Your task to perform on an android device: Go to internet settings Image 0: 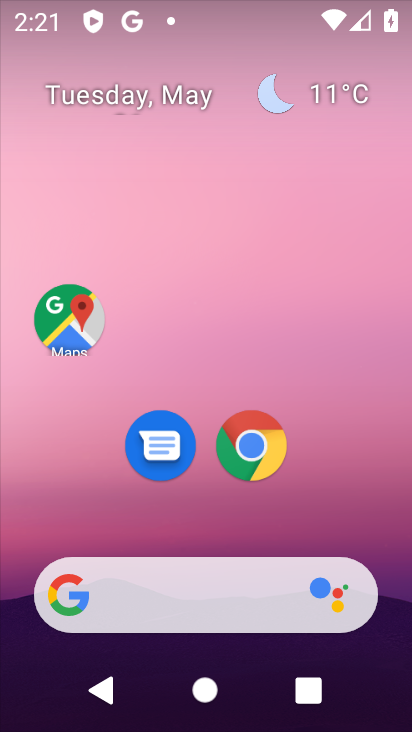
Step 0: drag from (246, 429) to (254, 104)
Your task to perform on an android device: Go to internet settings Image 1: 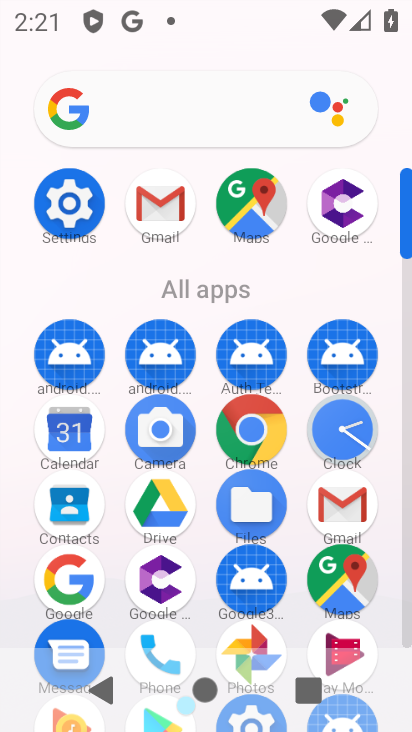
Step 1: click (79, 208)
Your task to perform on an android device: Go to internet settings Image 2: 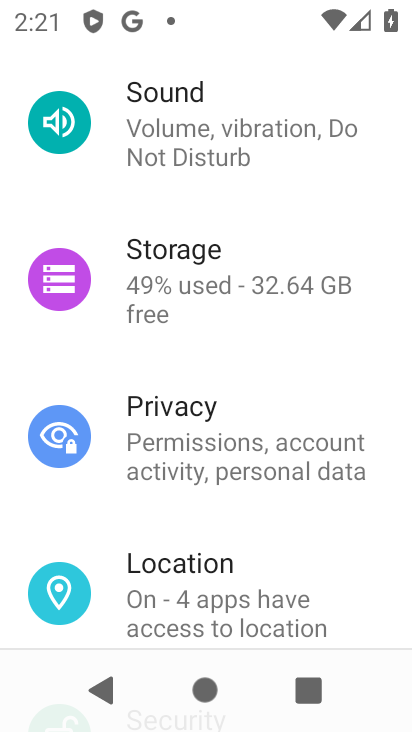
Step 2: drag from (238, 109) to (291, 543)
Your task to perform on an android device: Go to internet settings Image 3: 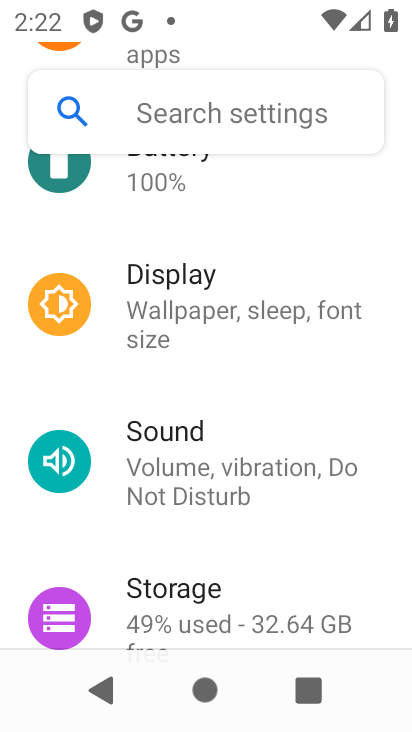
Step 3: drag from (269, 201) to (310, 603)
Your task to perform on an android device: Go to internet settings Image 4: 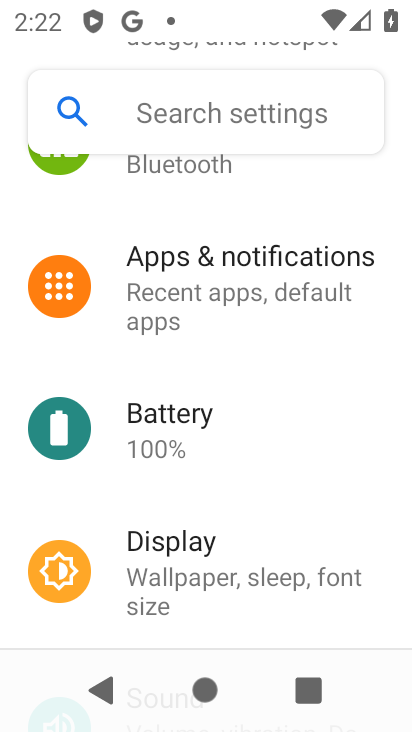
Step 4: drag from (247, 207) to (297, 566)
Your task to perform on an android device: Go to internet settings Image 5: 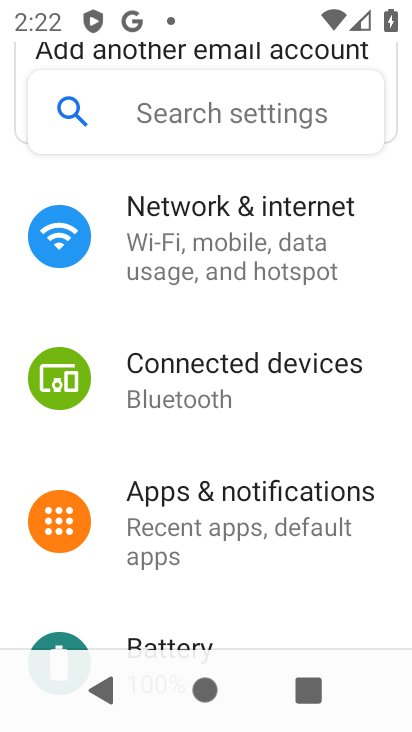
Step 5: click (229, 238)
Your task to perform on an android device: Go to internet settings Image 6: 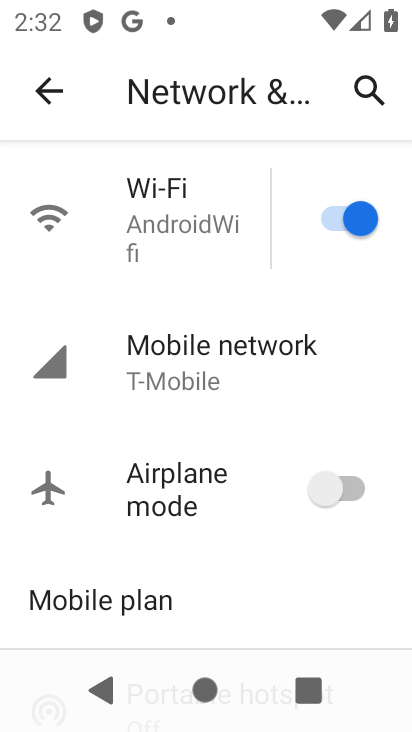
Step 6: task complete